Your task to perform on an android device: search for starred emails in the gmail app Image 0: 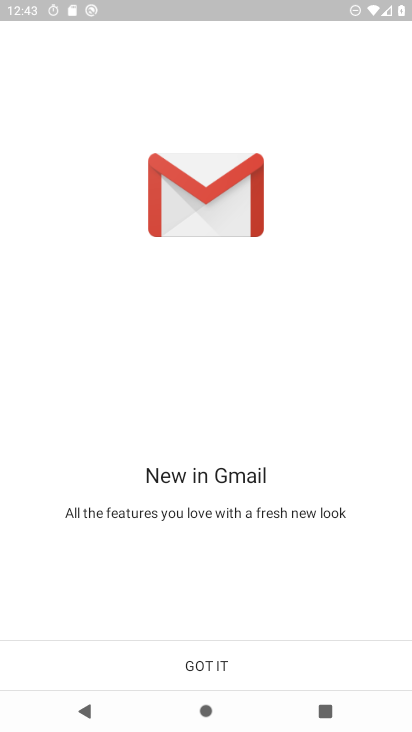
Step 0: press home button
Your task to perform on an android device: search for starred emails in the gmail app Image 1: 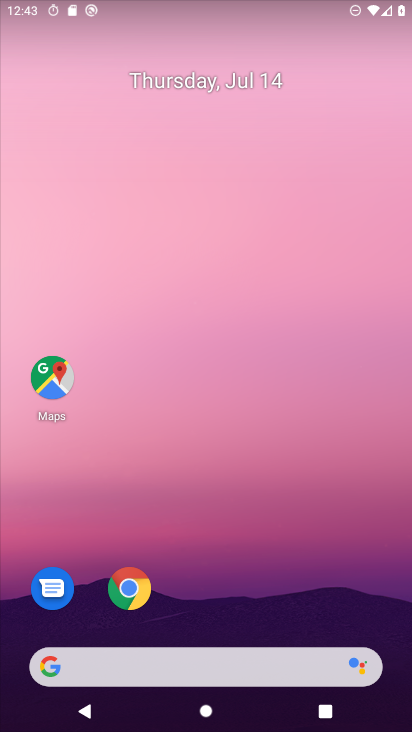
Step 1: drag from (173, 659) to (318, 177)
Your task to perform on an android device: search for starred emails in the gmail app Image 2: 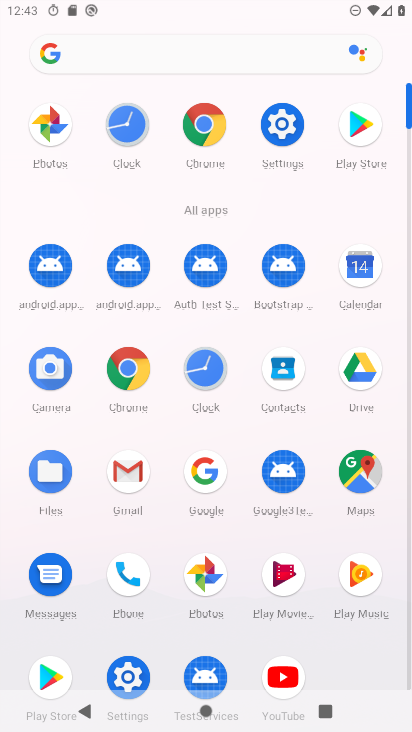
Step 2: click (128, 480)
Your task to perform on an android device: search for starred emails in the gmail app Image 3: 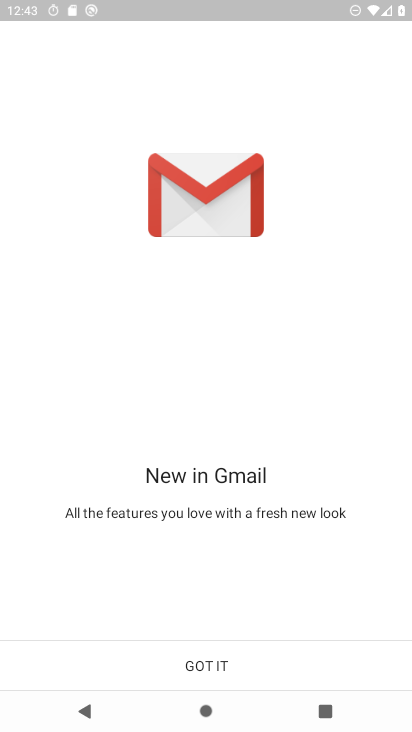
Step 3: click (218, 662)
Your task to perform on an android device: search for starred emails in the gmail app Image 4: 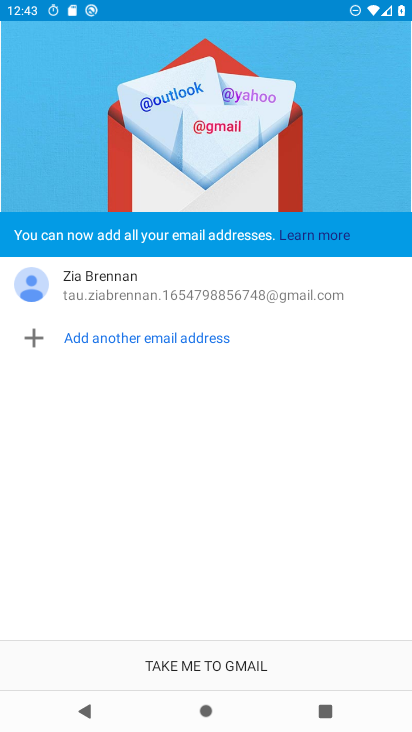
Step 4: click (192, 662)
Your task to perform on an android device: search for starred emails in the gmail app Image 5: 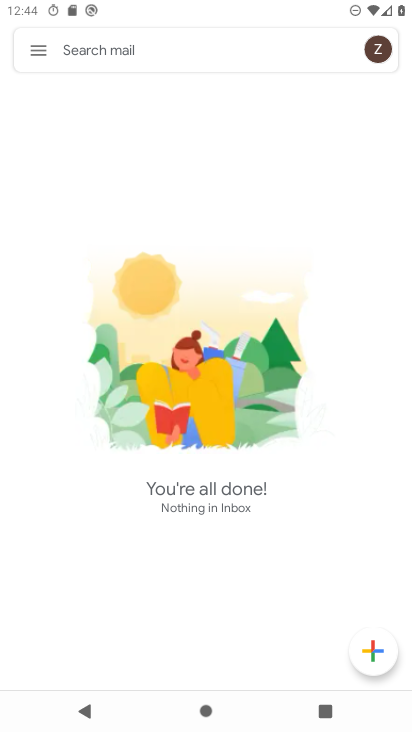
Step 5: click (35, 50)
Your task to perform on an android device: search for starred emails in the gmail app Image 6: 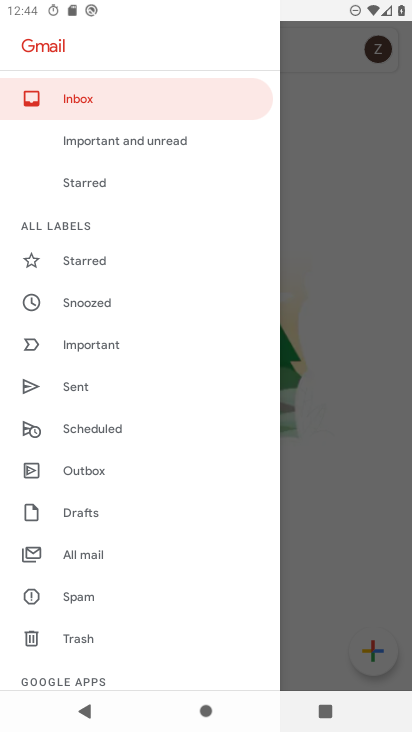
Step 6: click (110, 266)
Your task to perform on an android device: search for starred emails in the gmail app Image 7: 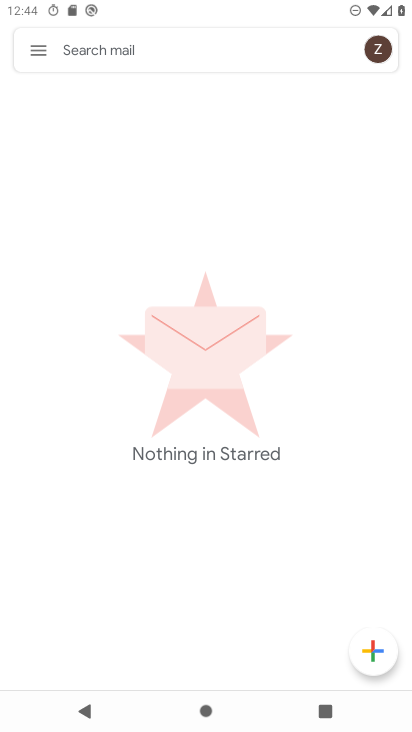
Step 7: task complete